Your task to perform on an android device: turn off data saver in the chrome app Image 0: 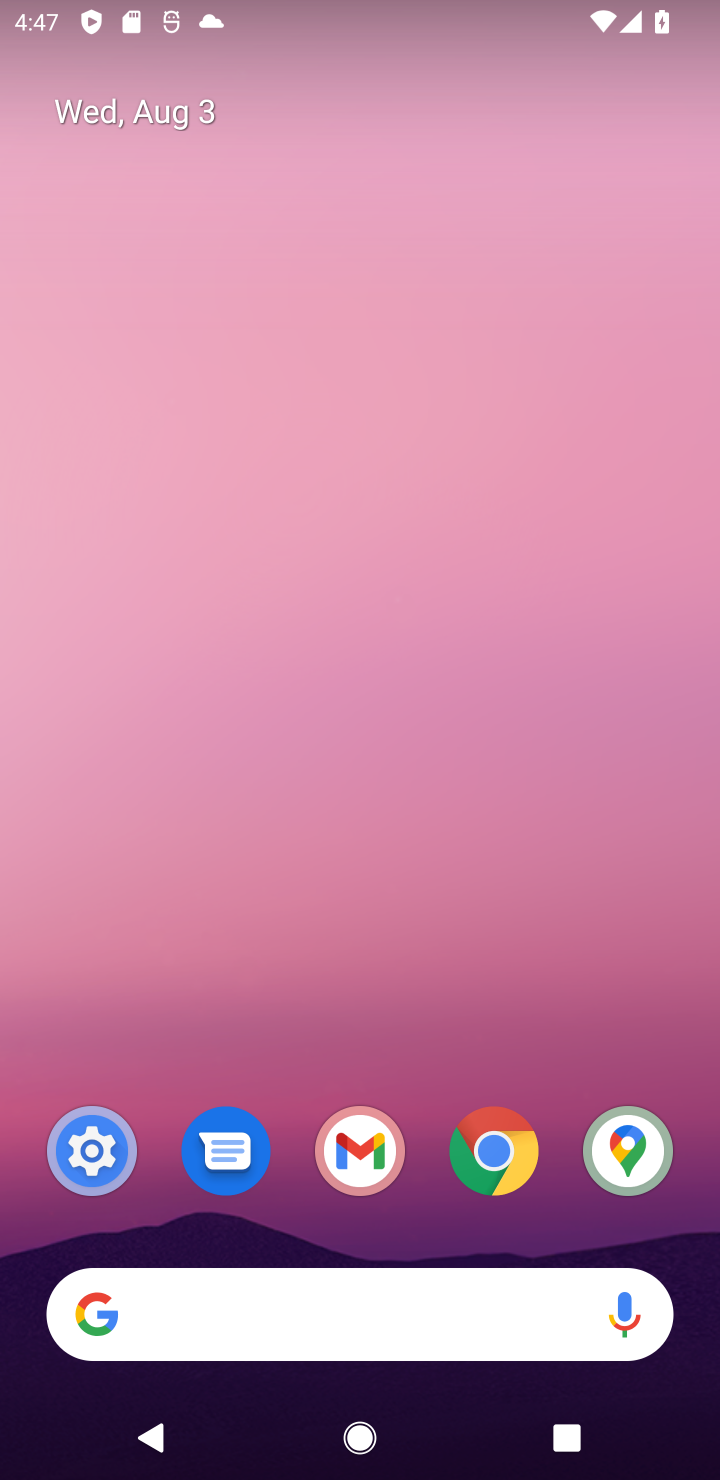
Step 0: drag from (460, 1235) to (365, 591)
Your task to perform on an android device: turn off data saver in the chrome app Image 1: 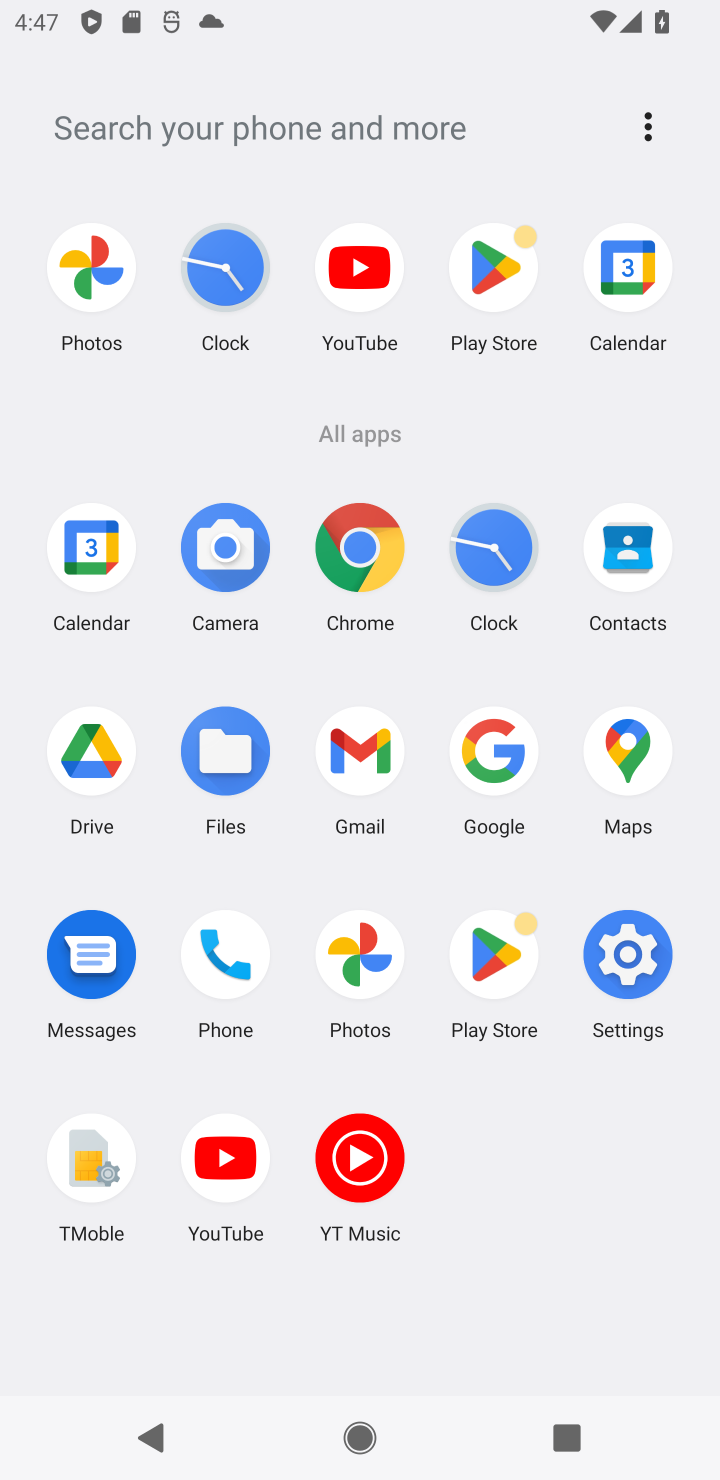
Step 1: click (370, 568)
Your task to perform on an android device: turn off data saver in the chrome app Image 2: 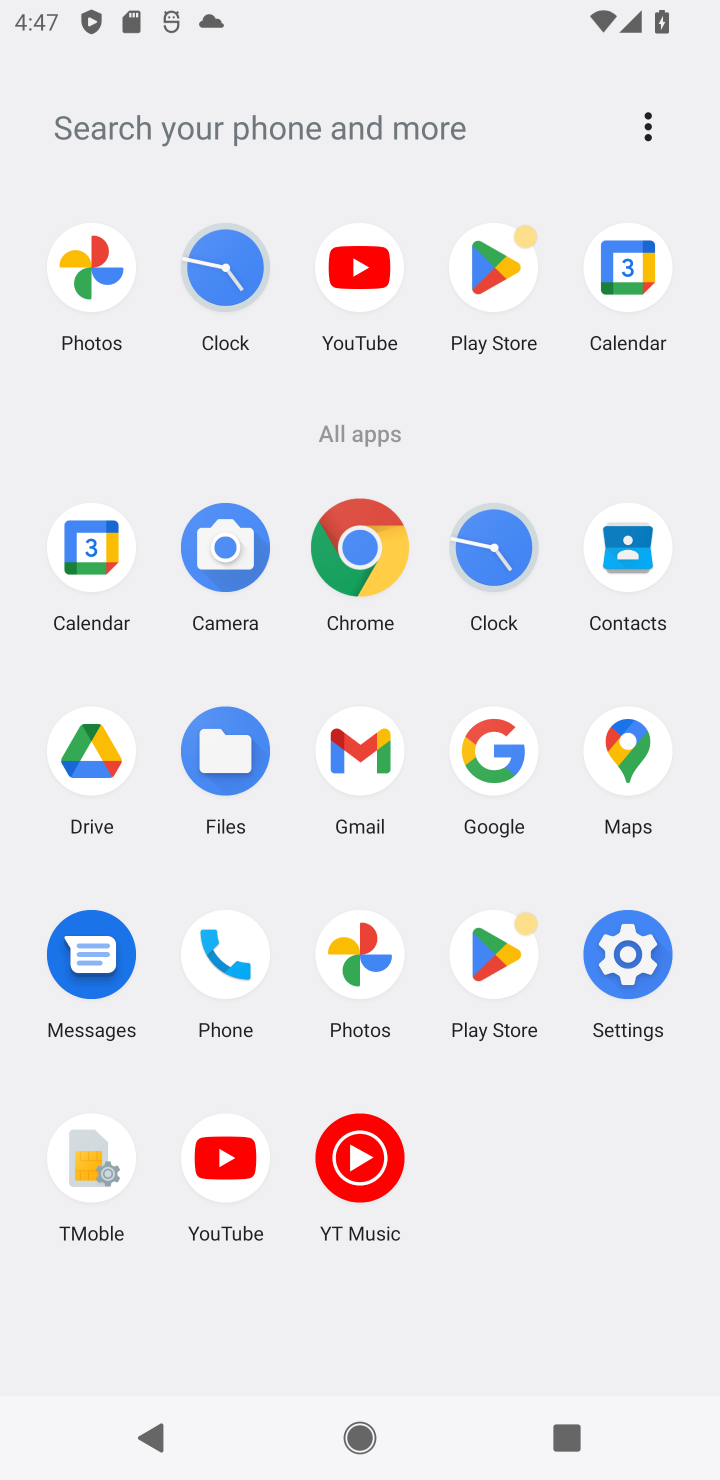
Step 2: click (370, 568)
Your task to perform on an android device: turn off data saver in the chrome app Image 3: 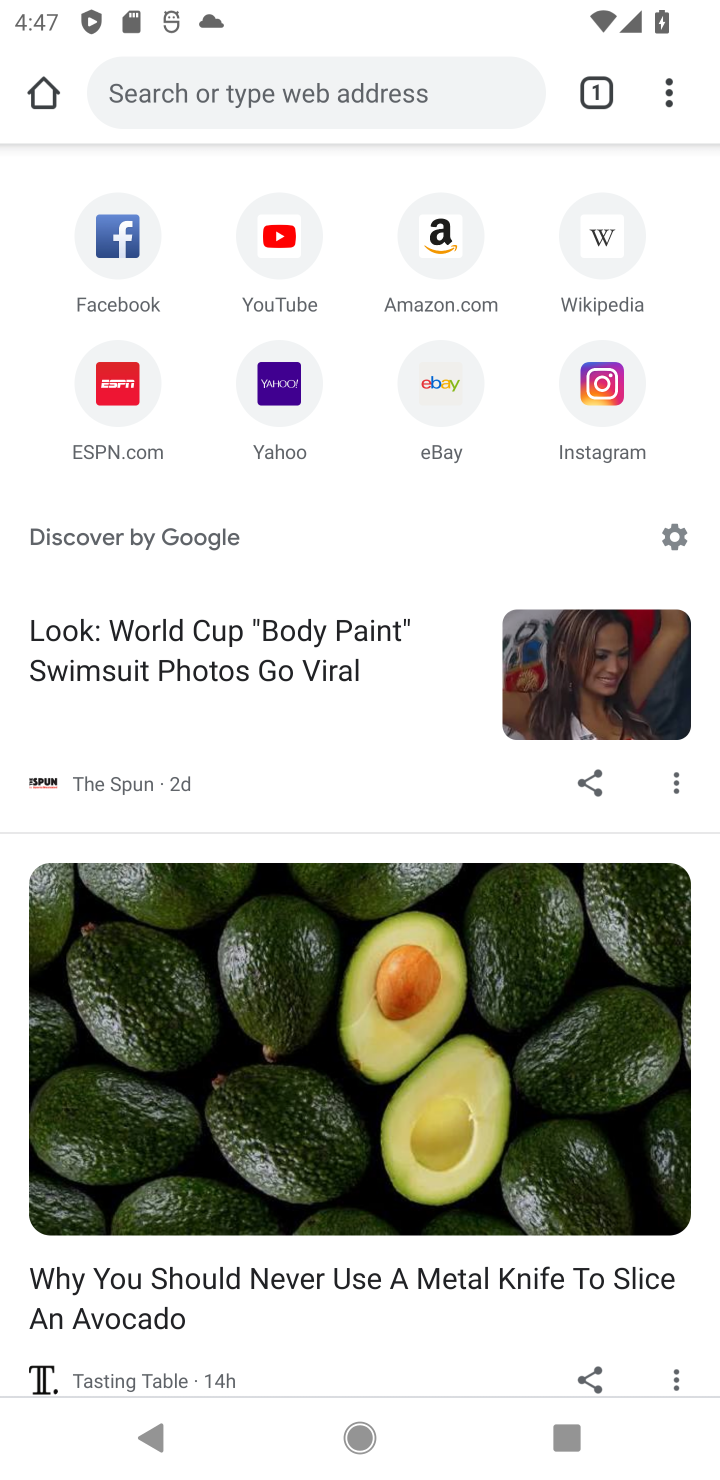
Step 3: drag from (663, 106) to (384, 861)
Your task to perform on an android device: turn off data saver in the chrome app Image 4: 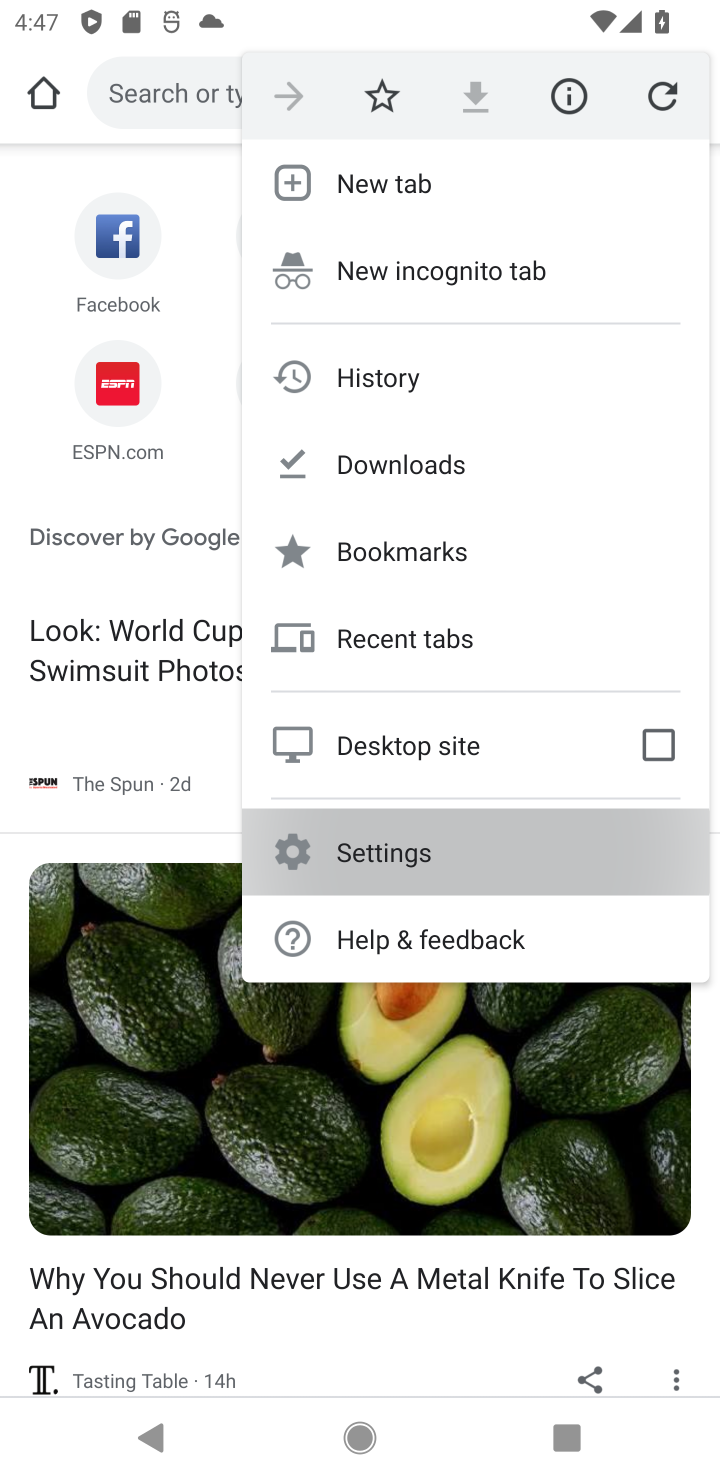
Step 4: click (365, 847)
Your task to perform on an android device: turn off data saver in the chrome app Image 5: 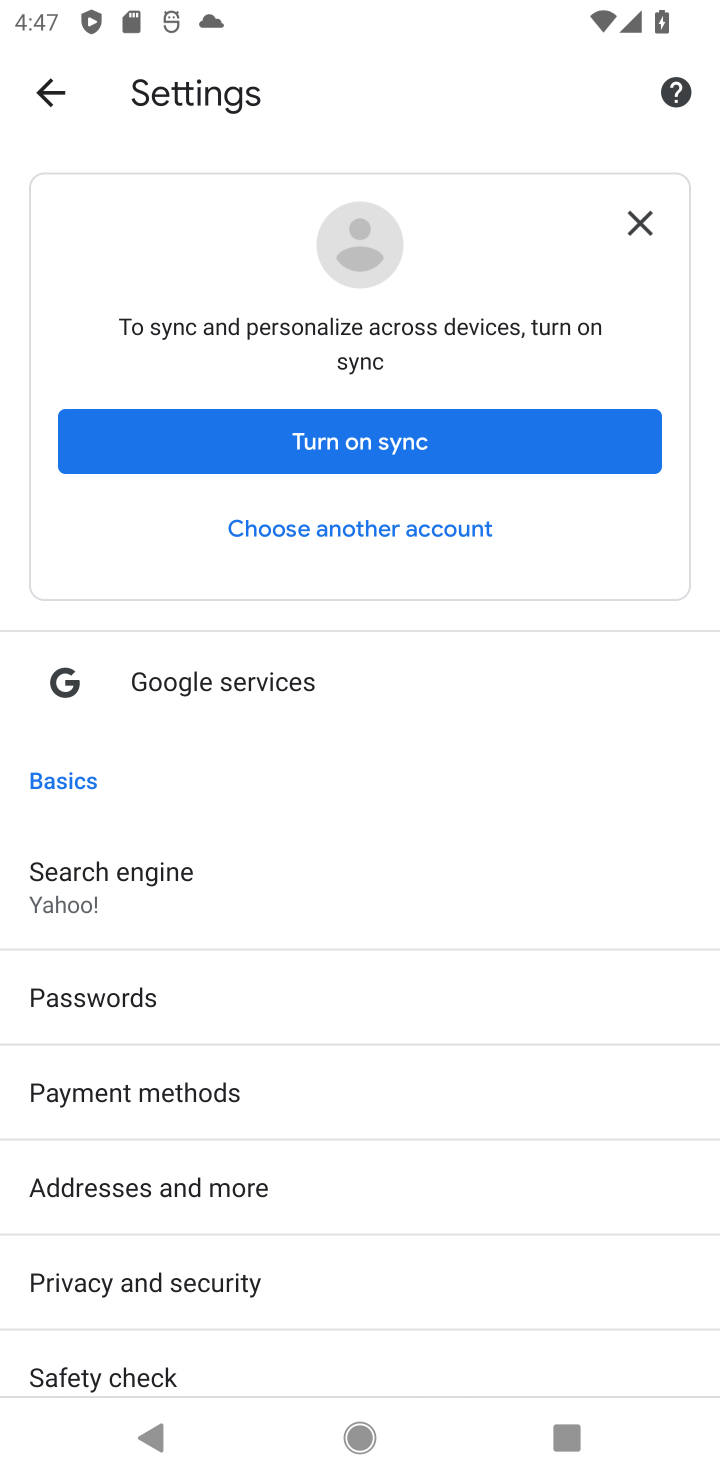
Step 5: drag from (222, 1158) to (288, 583)
Your task to perform on an android device: turn off data saver in the chrome app Image 6: 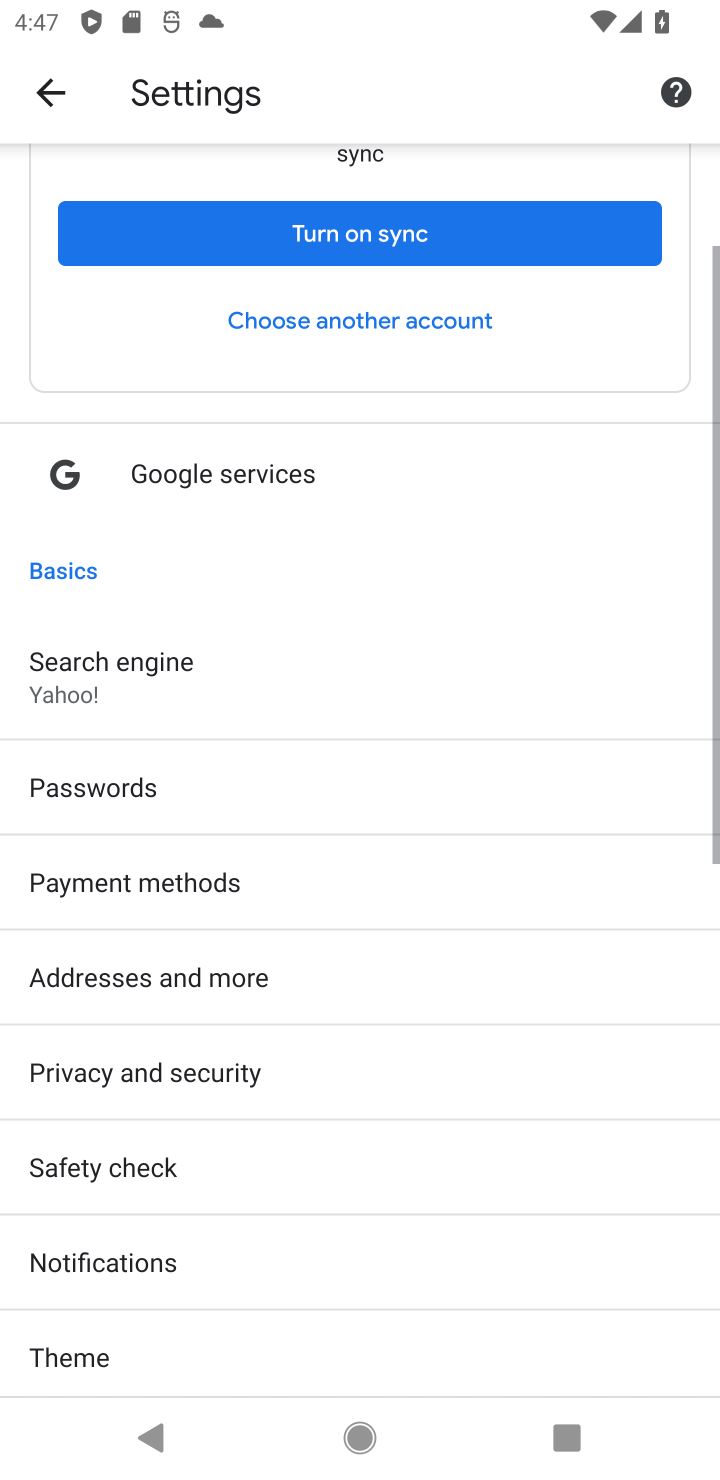
Step 6: drag from (312, 1097) to (304, 687)
Your task to perform on an android device: turn off data saver in the chrome app Image 7: 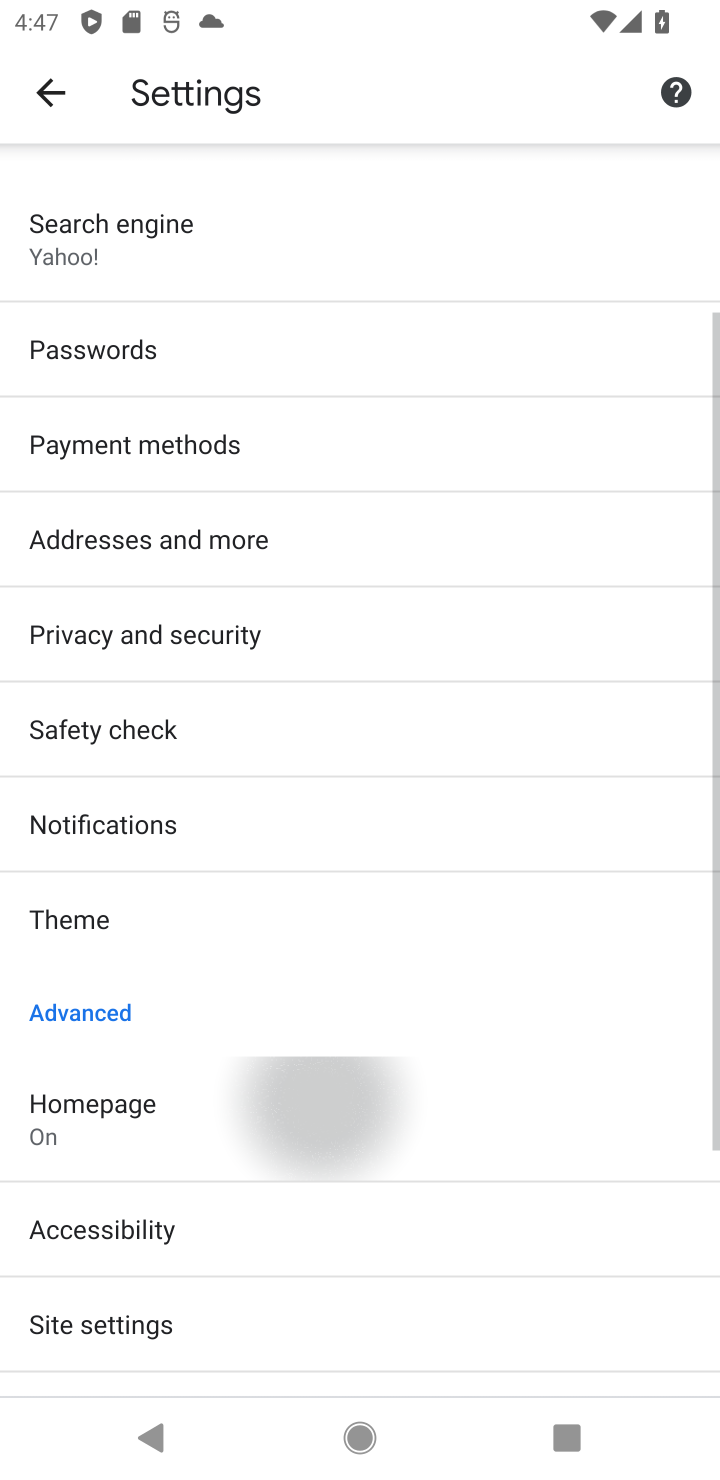
Step 7: drag from (289, 945) to (295, 544)
Your task to perform on an android device: turn off data saver in the chrome app Image 8: 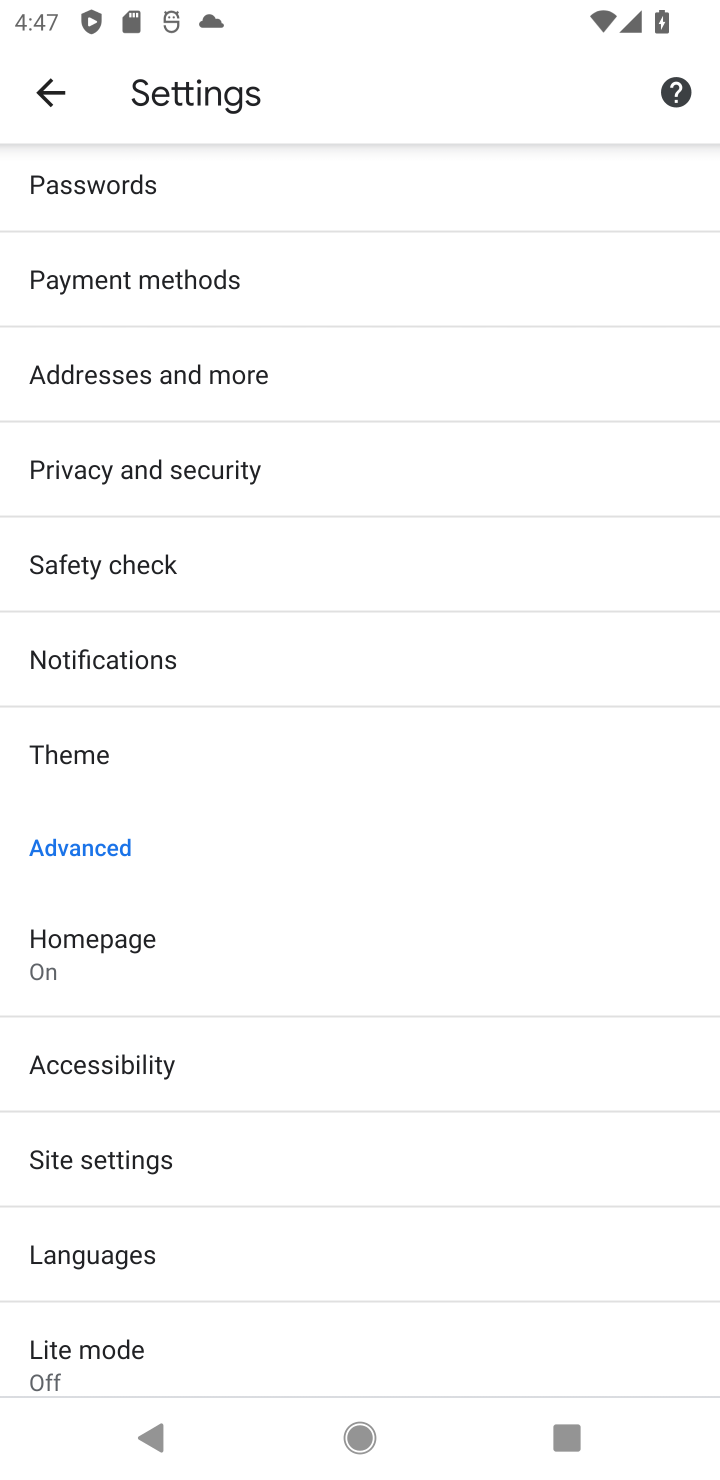
Step 8: click (106, 1354)
Your task to perform on an android device: turn off data saver in the chrome app Image 9: 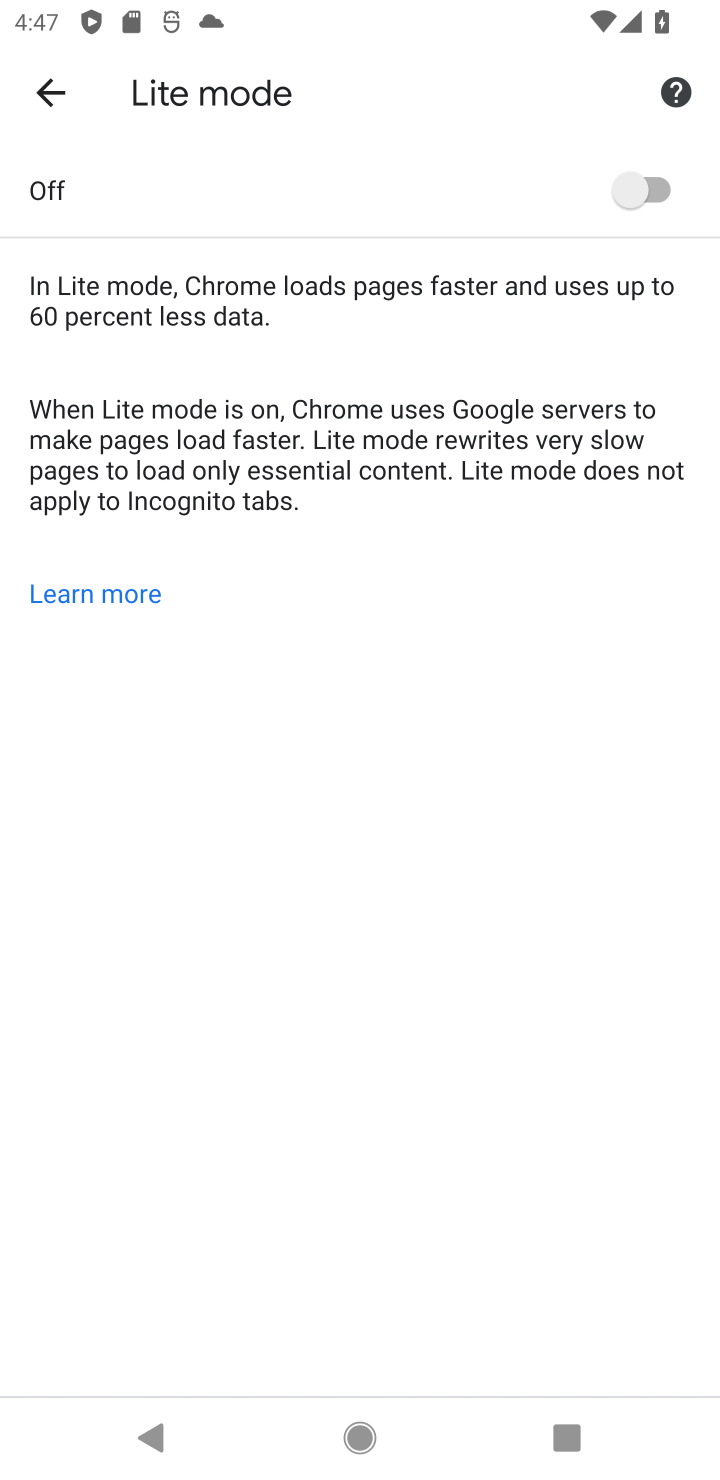
Step 9: click (630, 170)
Your task to perform on an android device: turn off data saver in the chrome app Image 10: 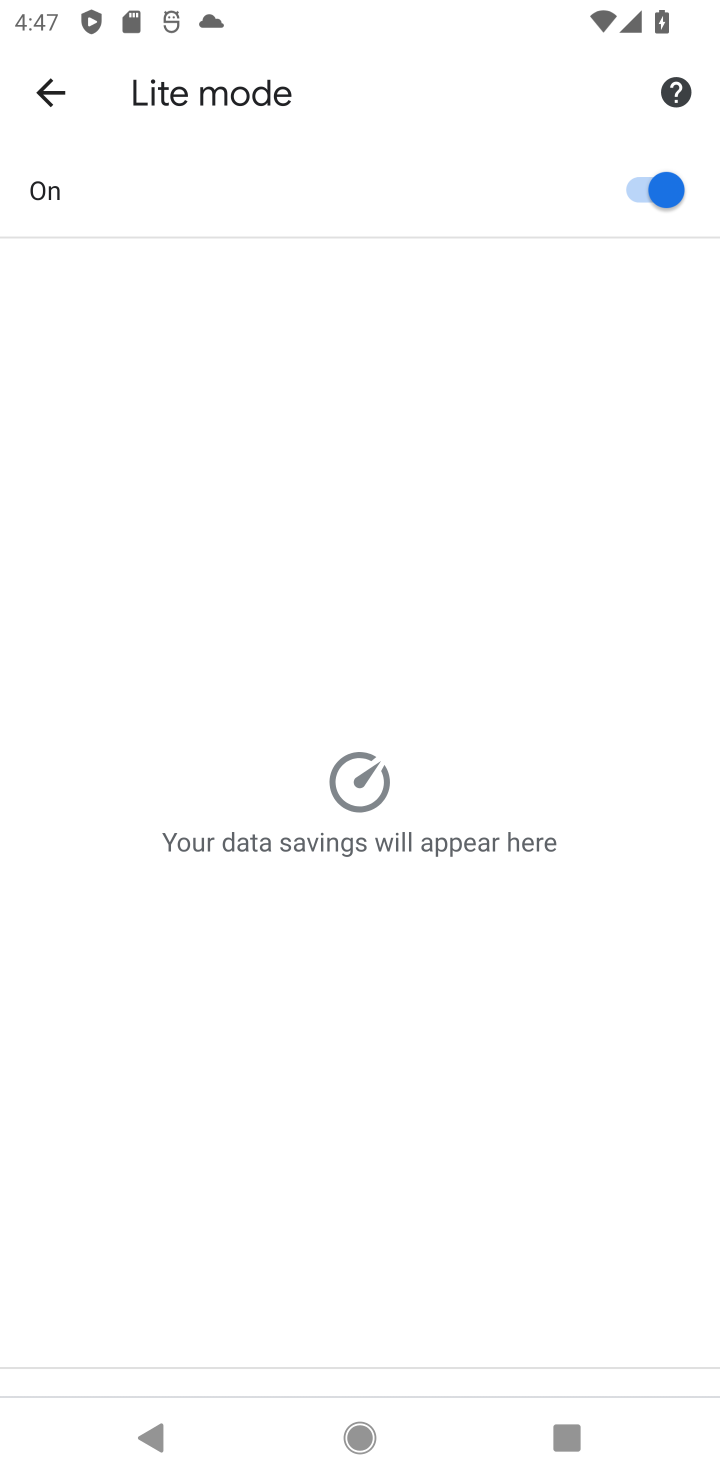
Step 10: click (670, 190)
Your task to perform on an android device: turn off data saver in the chrome app Image 11: 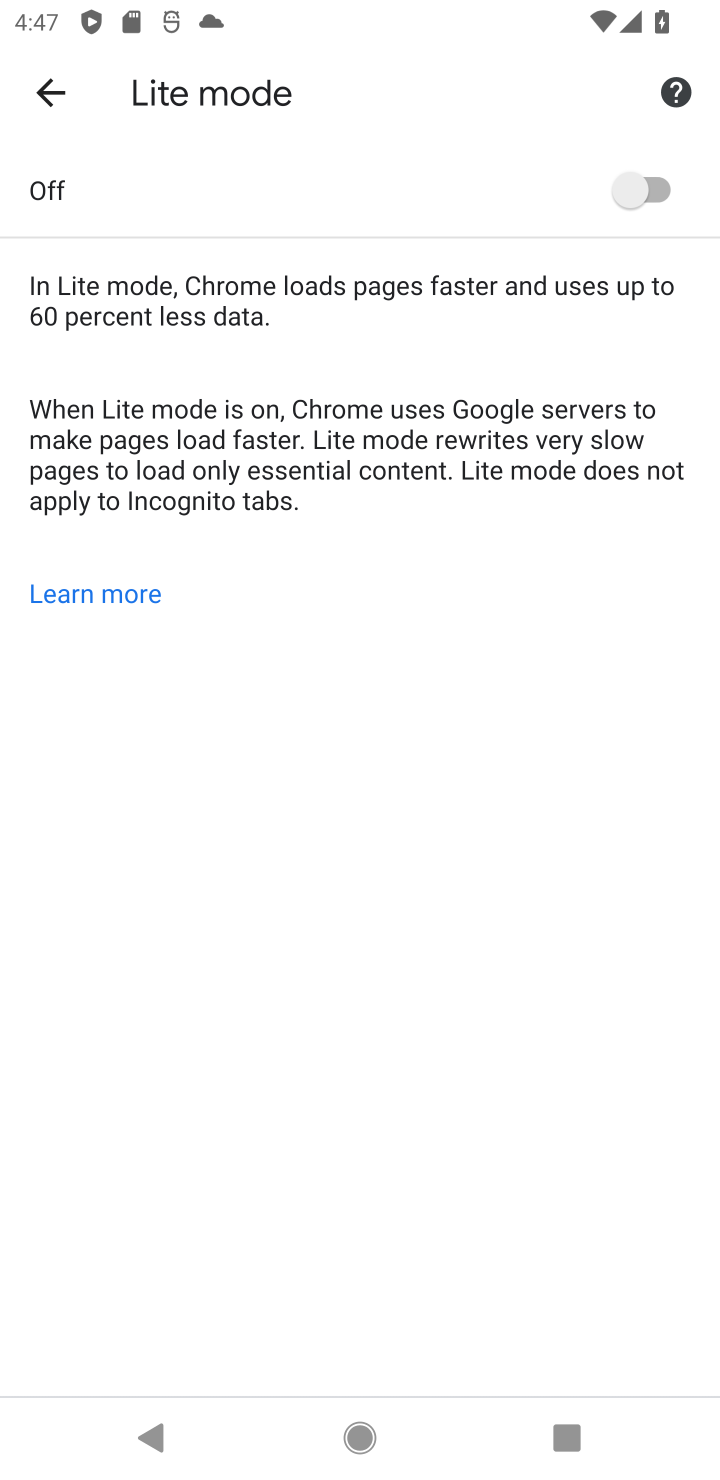
Step 11: task complete